Your task to perform on an android device: Open Youtube and go to the subscriptions tab Image 0: 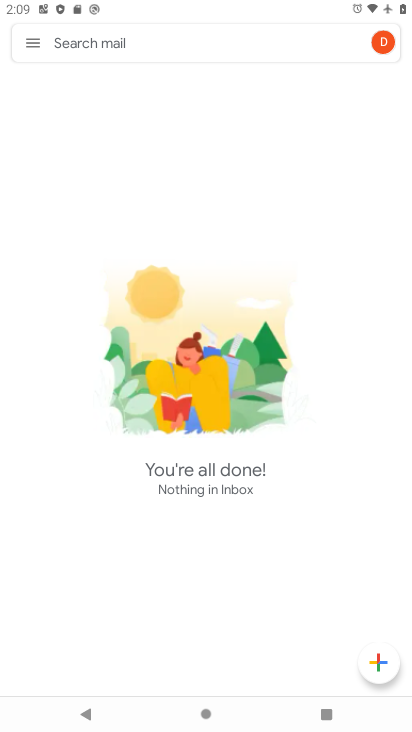
Step 0: press home button
Your task to perform on an android device: Open Youtube and go to the subscriptions tab Image 1: 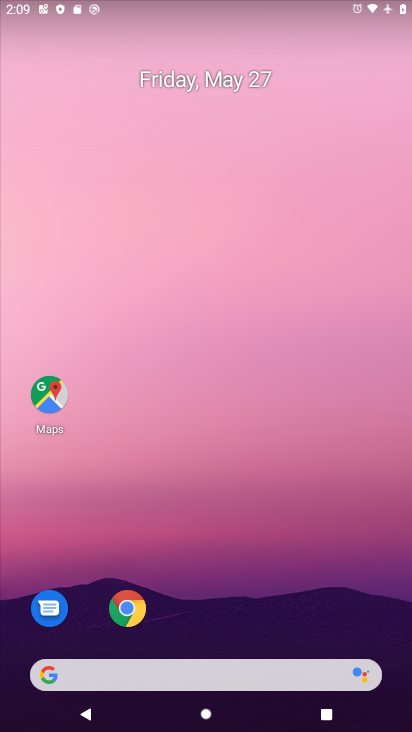
Step 1: drag from (181, 673) to (283, 124)
Your task to perform on an android device: Open Youtube and go to the subscriptions tab Image 2: 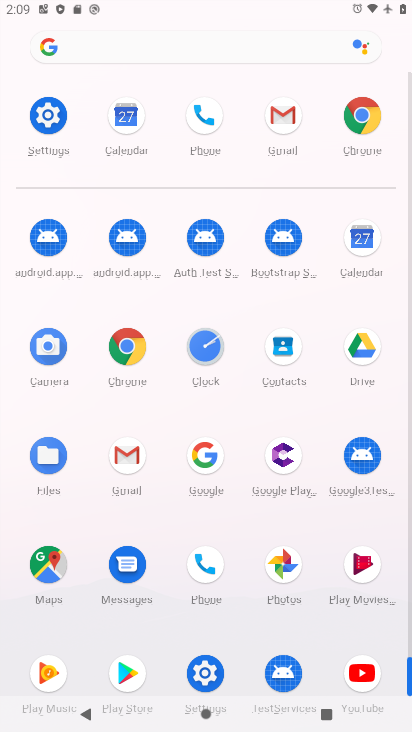
Step 2: click (361, 667)
Your task to perform on an android device: Open Youtube and go to the subscriptions tab Image 3: 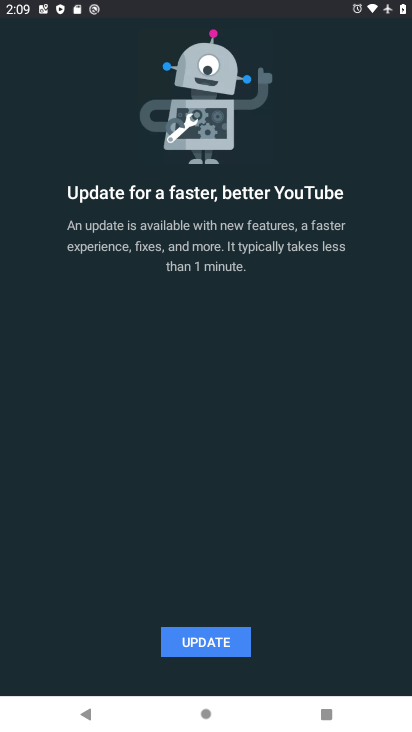
Step 3: click (220, 635)
Your task to perform on an android device: Open Youtube and go to the subscriptions tab Image 4: 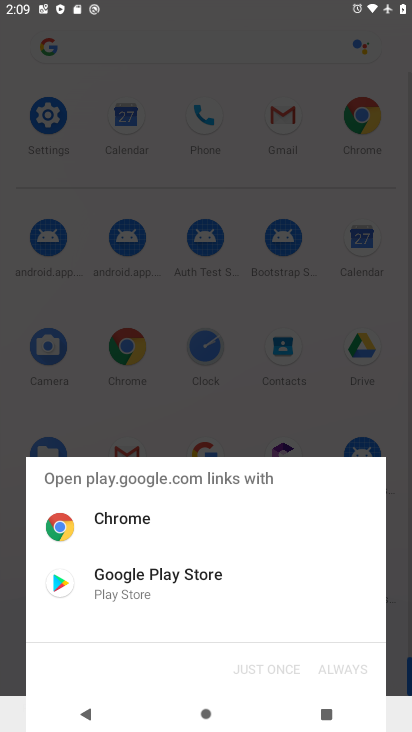
Step 4: click (157, 584)
Your task to perform on an android device: Open Youtube and go to the subscriptions tab Image 5: 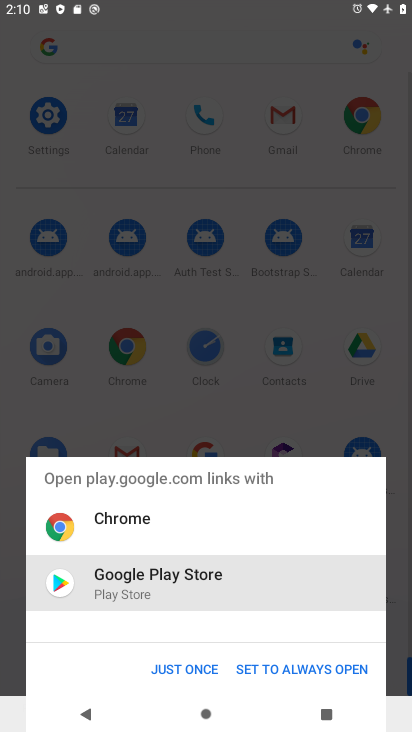
Step 5: click (202, 666)
Your task to perform on an android device: Open Youtube and go to the subscriptions tab Image 6: 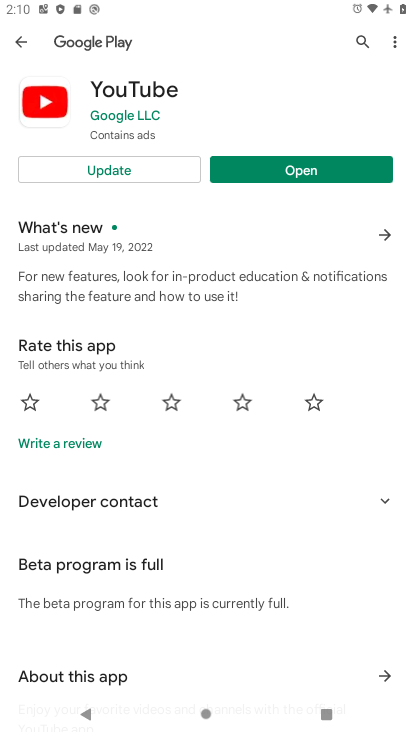
Step 6: click (102, 171)
Your task to perform on an android device: Open Youtube and go to the subscriptions tab Image 7: 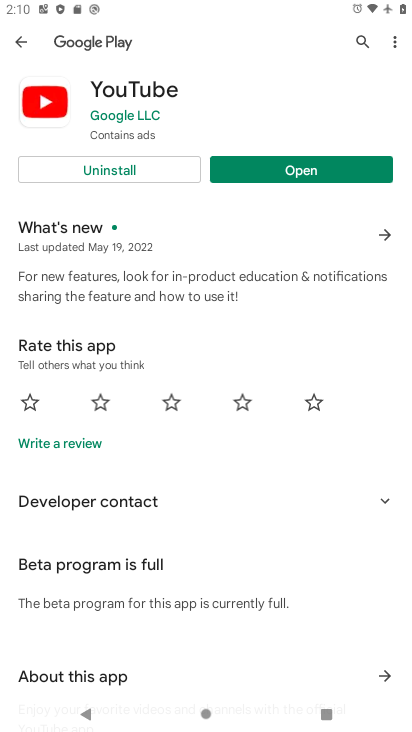
Step 7: click (303, 169)
Your task to perform on an android device: Open Youtube and go to the subscriptions tab Image 8: 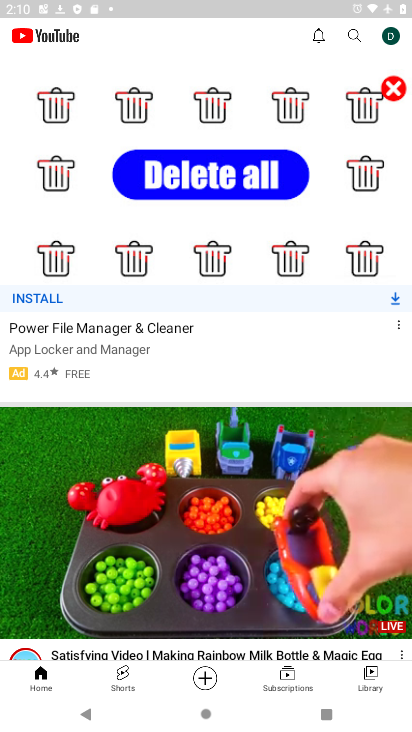
Step 8: click (287, 685)
Your task to perform on an android device: Open Youtube and go to the subscriptions tab Image 9: 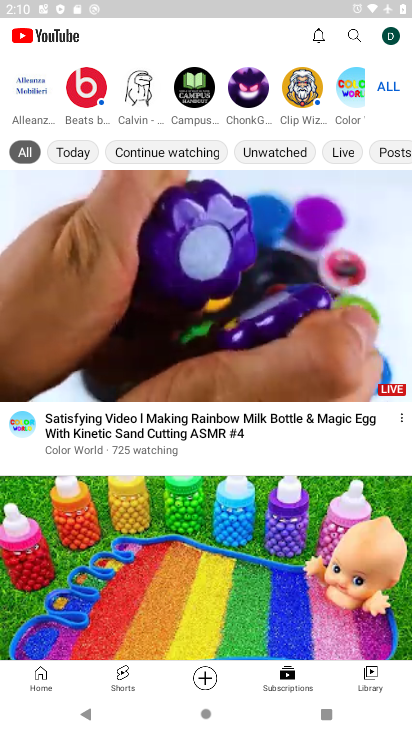
Step 9: task complete